Your task to perform on an android device: toggle data saver in the chrome app Image 0: 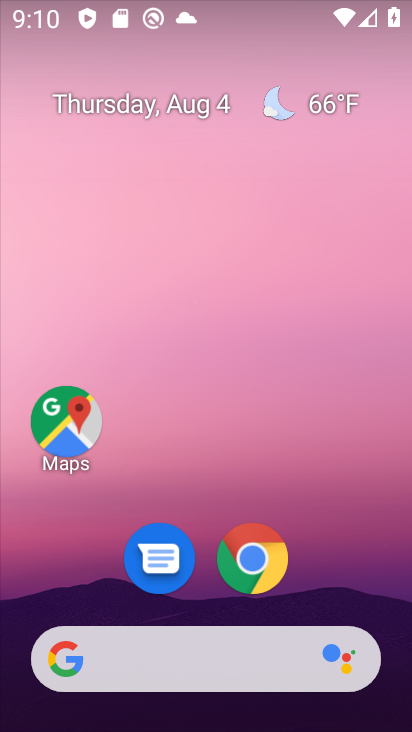
Step 0: press home button
Your task to perform on an android device: toggle data saver in the chrome app Image 1: 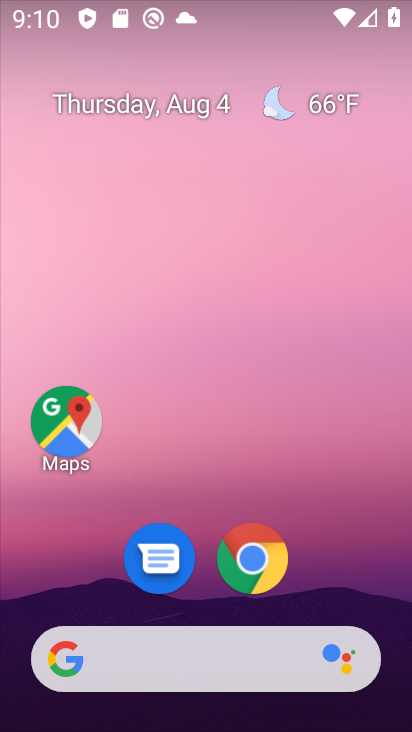
Step 1: drag from (353, 591) to (368, 84)
Your task to perform on an android device: toggle data saver in the chrome app Image 2: 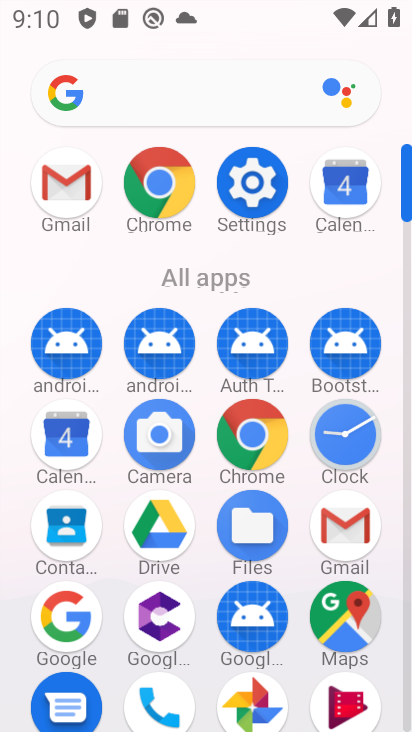
Step 2: click (255, 434)
Your task to perform on an android device: toggle data saver in the chrome app Image 3: 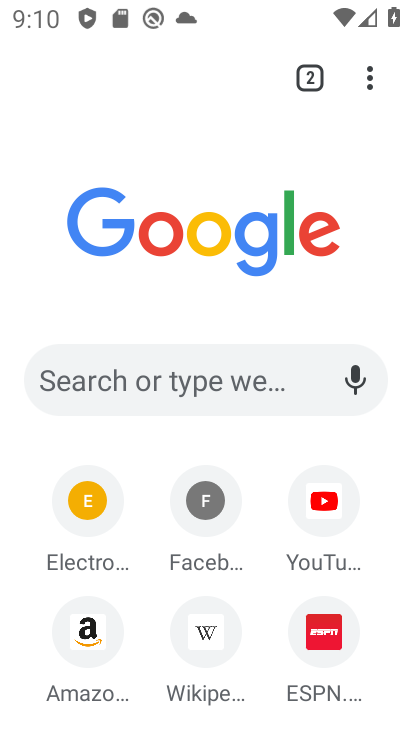
Step 3: drag from (372, 73) to (125, 634)
Your task to perform on an android device: toggle data saver in the chrome app Image 4: 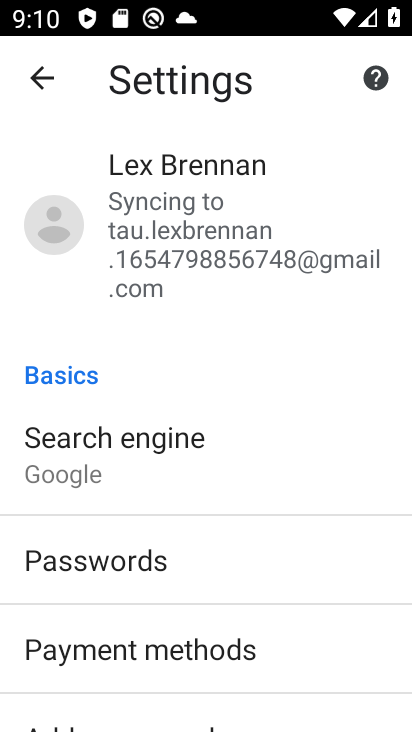
Step 4: drag from (286, 584) to (361, 239)
Your task to perform on an android device: toggle data saver in the chrome app Image 5: 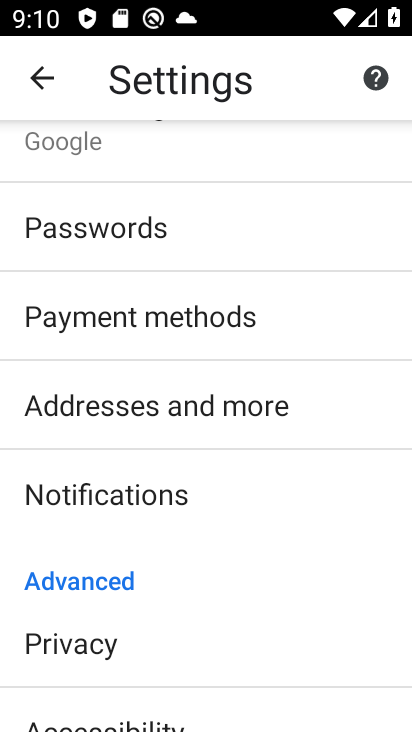
Step 5: drag from (278, 656) to (331, 199)
Your task to perform on an android device: toggle data saver in the chrome app Image 6: 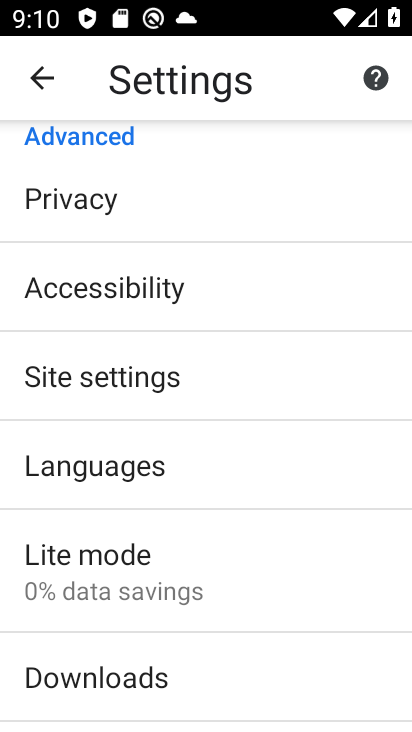
Step 6: click (244, 586)
Your task to perform on an android device: toggle data saver in the chrome app Image 7: 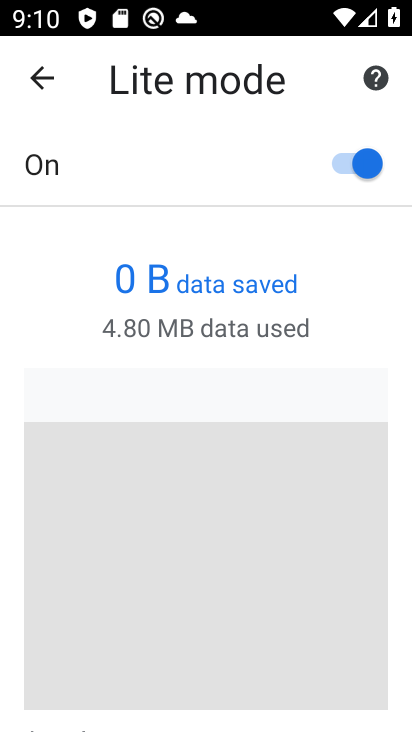
Step 7: click (340, 163)
Your task to perform on an android device: toggle data saver in the chrome app Image 8: 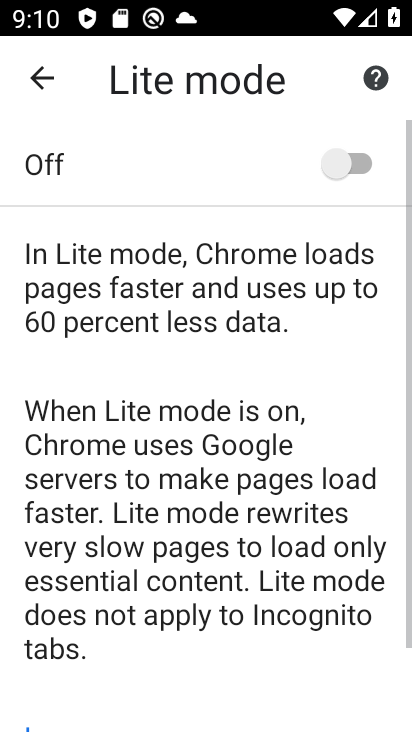
Step 8: task complete